Your task to perform on an android device: Open location settings Image 0: 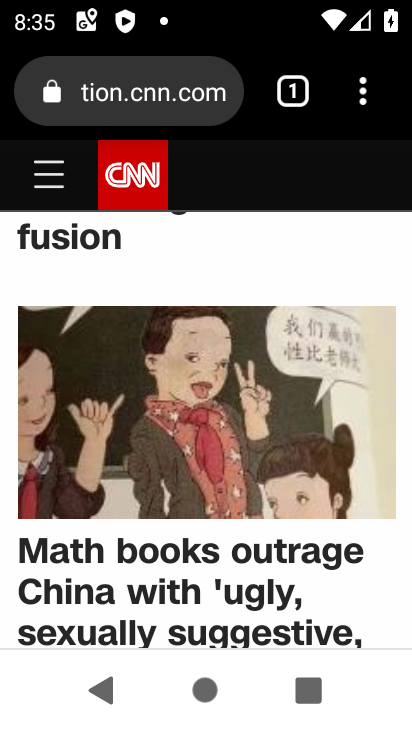
Step 0: press home button
Your task to perform on an android device: Open location settings Image 1: 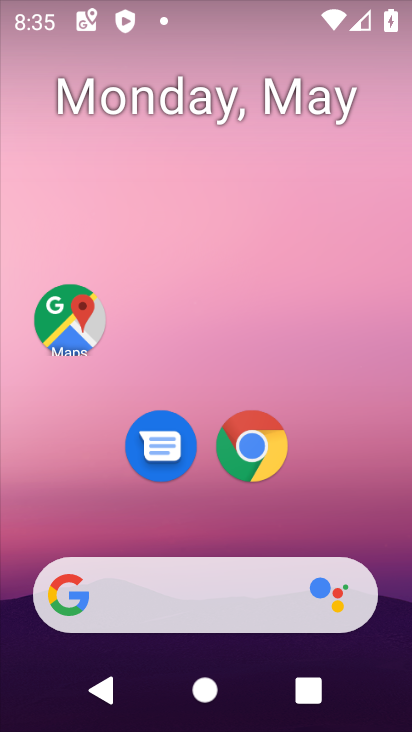
Step 1: drag from (210, 534) to (202, 96)
Your task to perform on an android device: Open location settings Image 2: 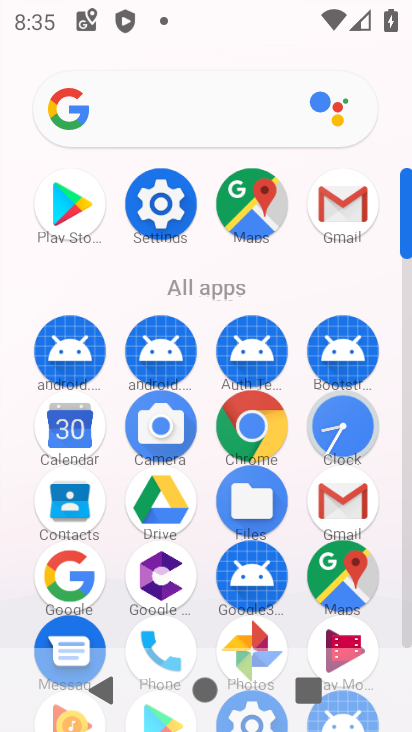
Step 2: click (158, 194)
Your task to perform on an android device: Open location settings Image 3: 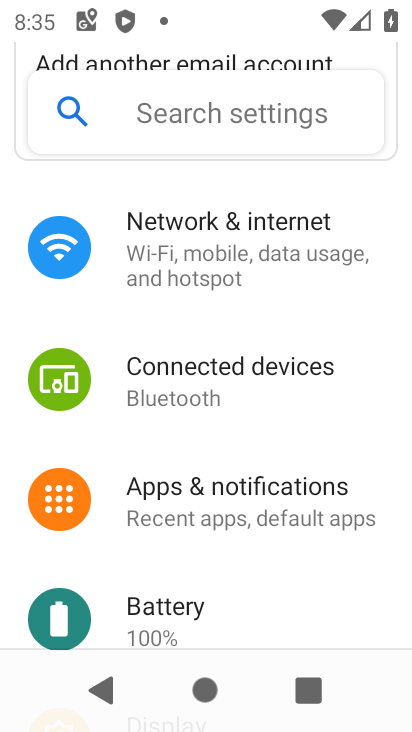
Step 3: drag from (239, 613) to (251, 172)
Your task to perform on an android device: Open location settings Image 4: 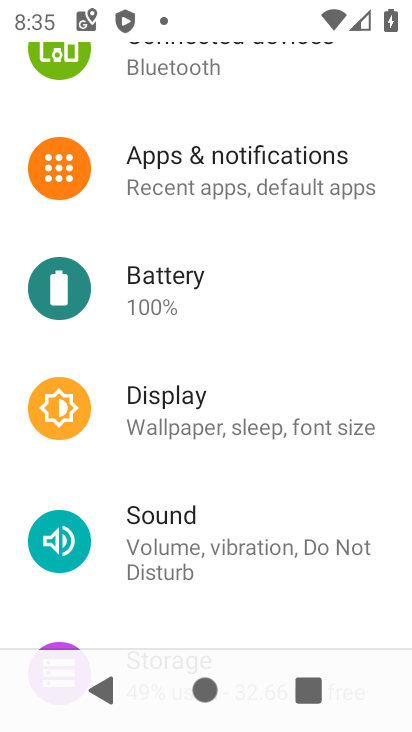
Step 4: drag from (213, 612) to (239, 114)
Your task to perform on an android device: Open location settings Image 5: 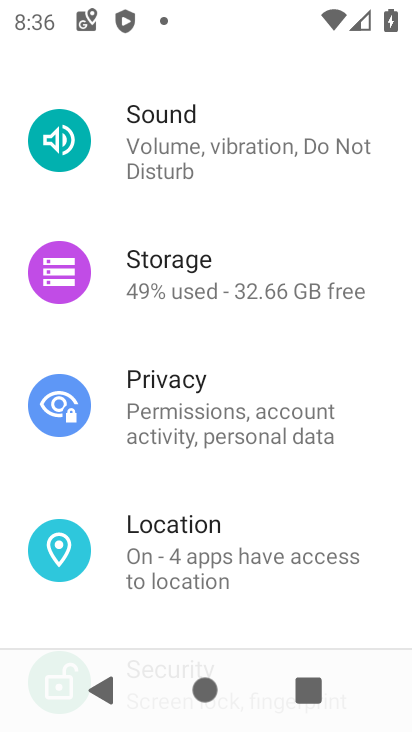
Step 5: click (234, 519)
Your task to perform on an android device: Open location settings Image 6: 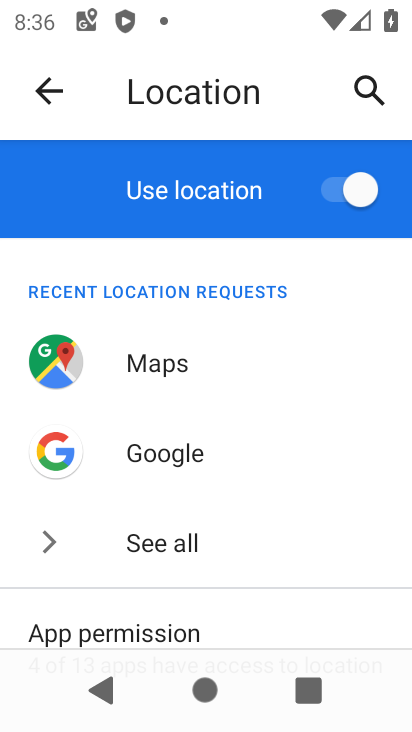
Step 6: drag from (229, 618) to (237, 168)
Your task to perform on an android device: Open location settings Image 7: 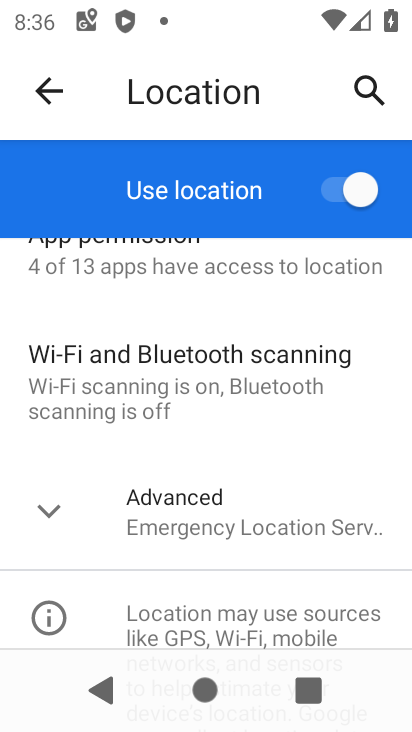
Step 7: click (56, 508)
Your task to perform on an android device: Open location settings Image 8: 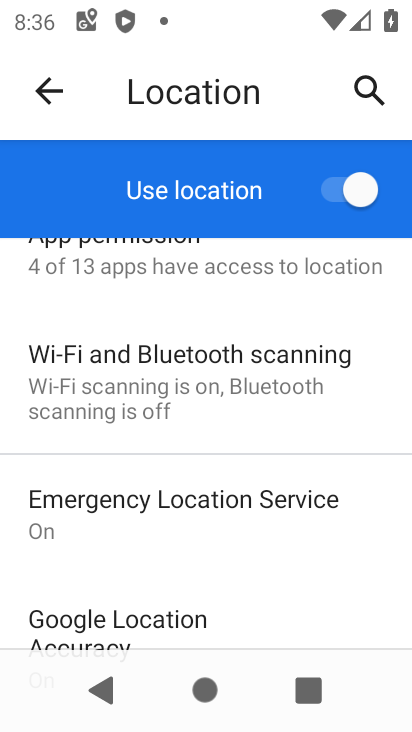
Step 8: task complete